Your task to perform on an android device: Go to Yahoo.com Image 0: 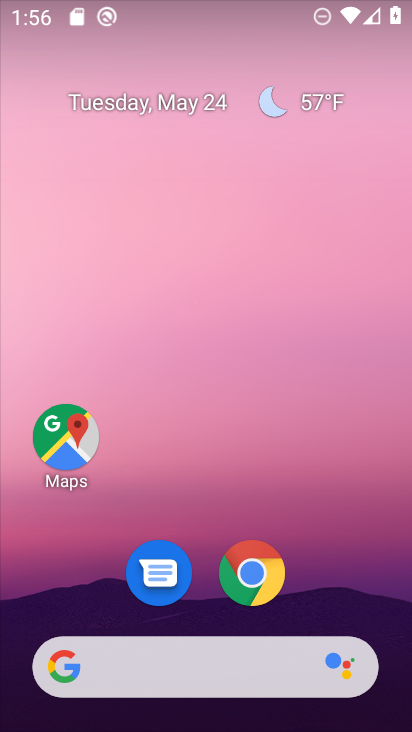
Step 0: drag from (351, 604) to (347, 111)
Your task to perform on an android device: Go to Yahoo.com Image 1: 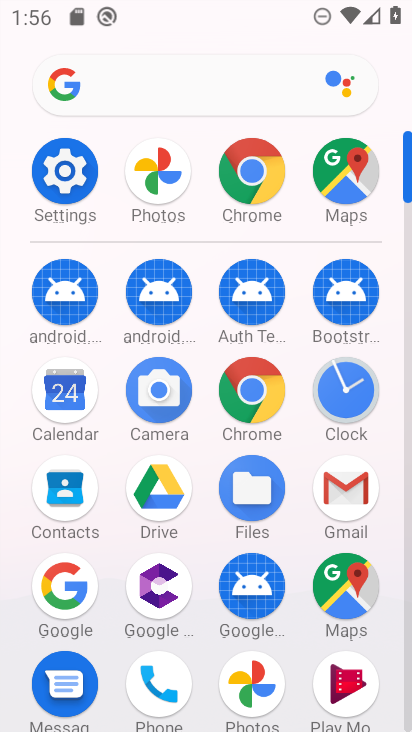
Step 1: click (249, 398)
Your task to perform on an android device: Go to Yahoo.com Image 2: 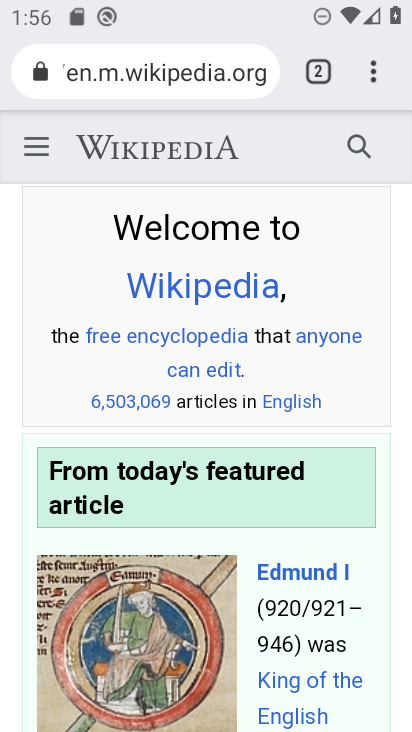
Step 2: click (187, 70)
Your task to perform on an android device: Go to Yahoo.com Image 3: 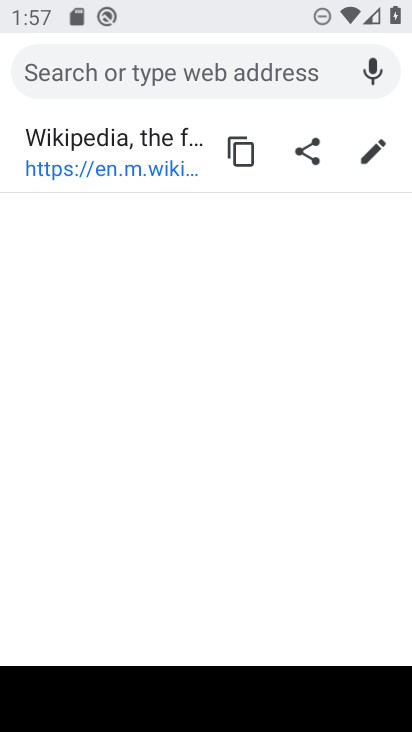
Step 3: type "yahoo.com"
Your task to perform on an android device: Go to Yahoo.com Image 4: 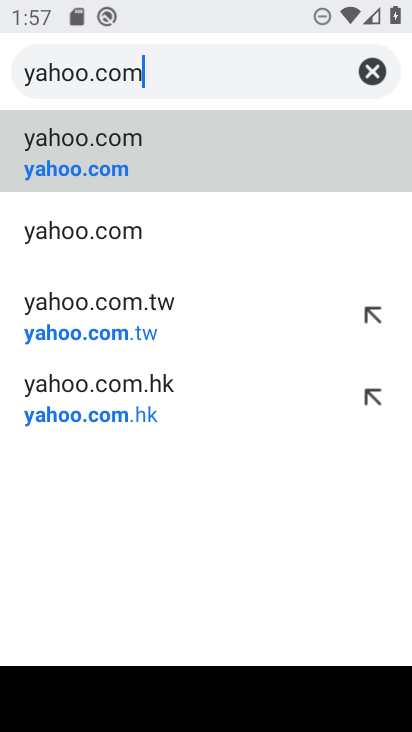
Step 4: click (64, 152)
Your task to perform on an android device: Go to Yahoo.com Image 5: 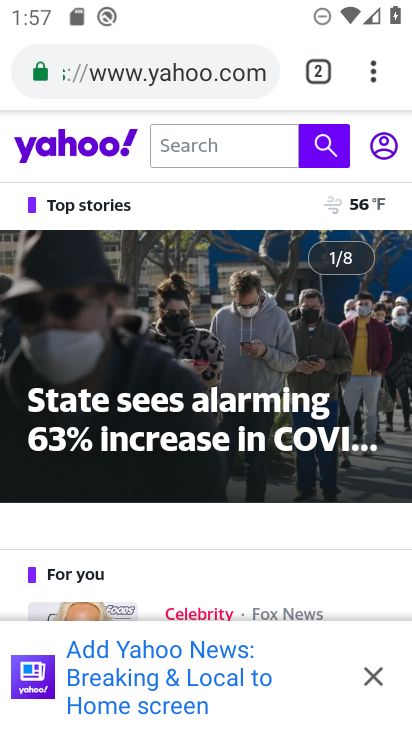
Step 5: task complete